Your task to perform on an android device: set default search engine in the chrome app Image 0: 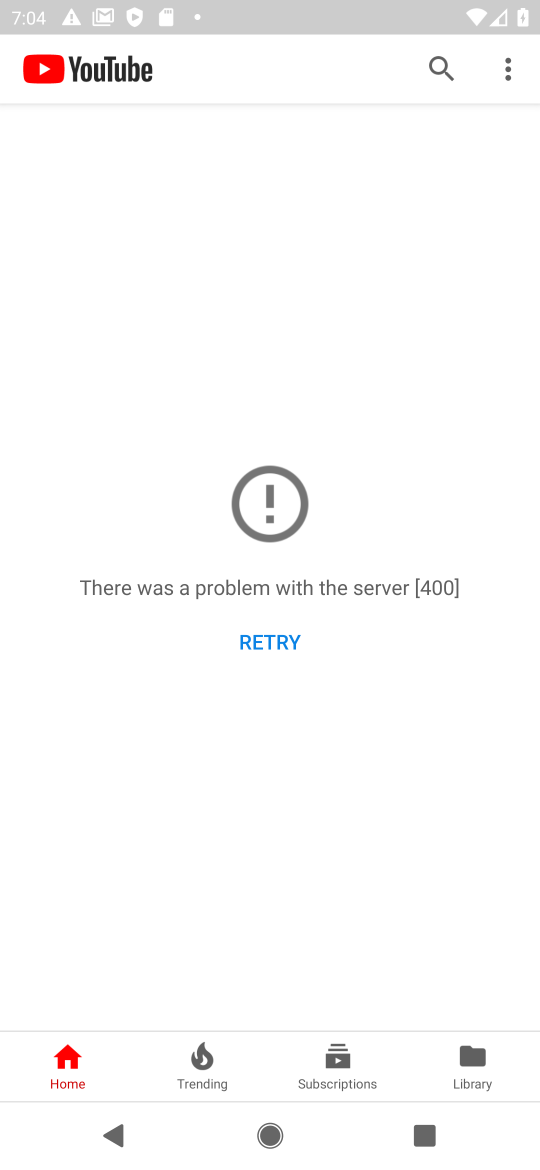
Step 0: press home button
Your task to perform on an android device: set default search engine in the chrome app Image 1: 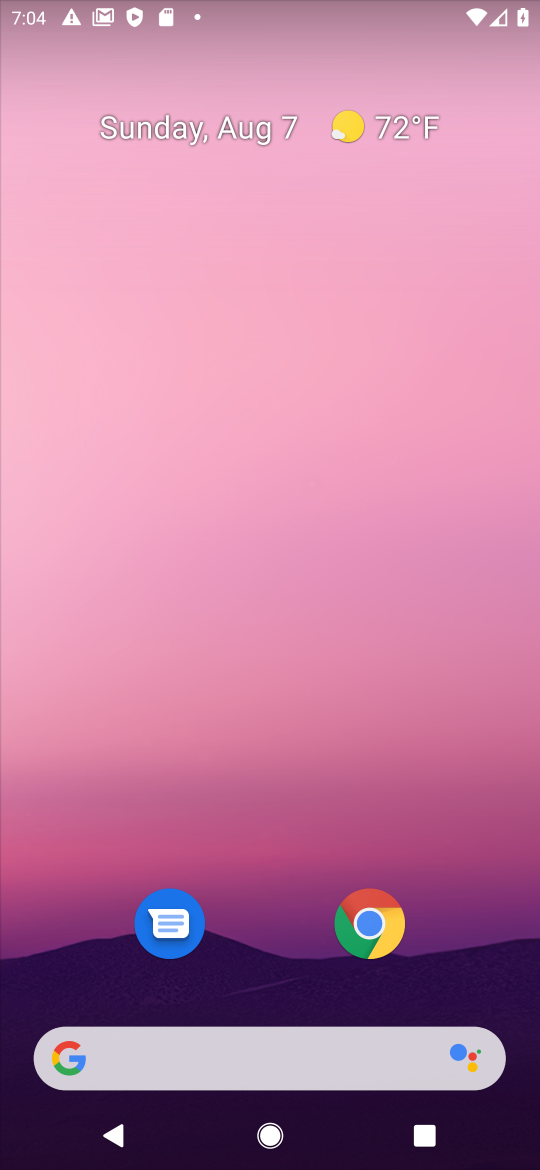
Step 1: drag from (465, 998) to (446, 9)
Your task to perform on an android device: set default search engine in the chrome app Image 2: 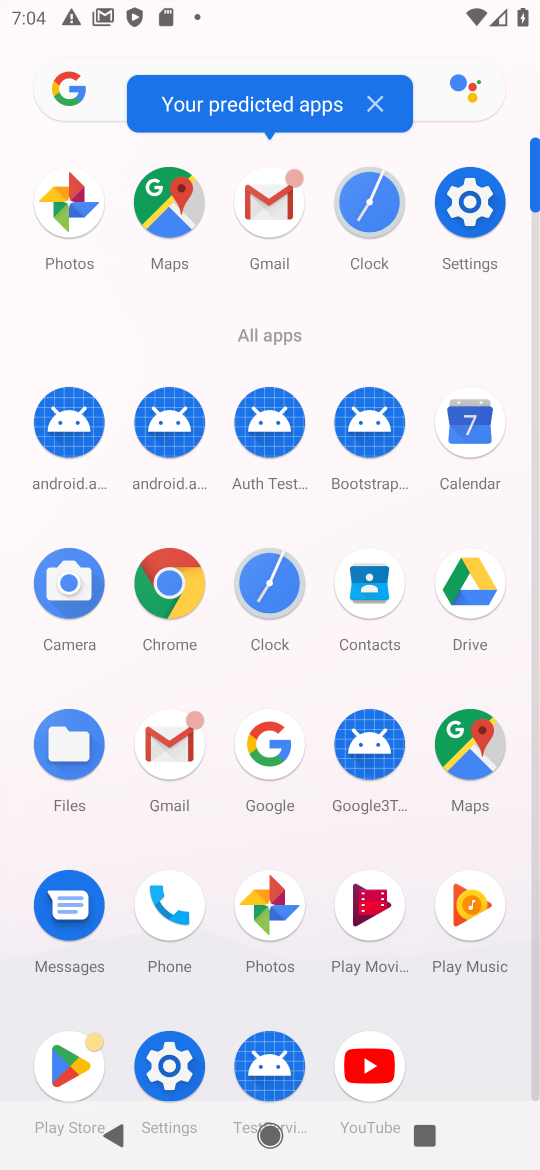
Step 2: click (187, 595)
Your task to perform on an android device: set default search engine in the chrome app Image 3: 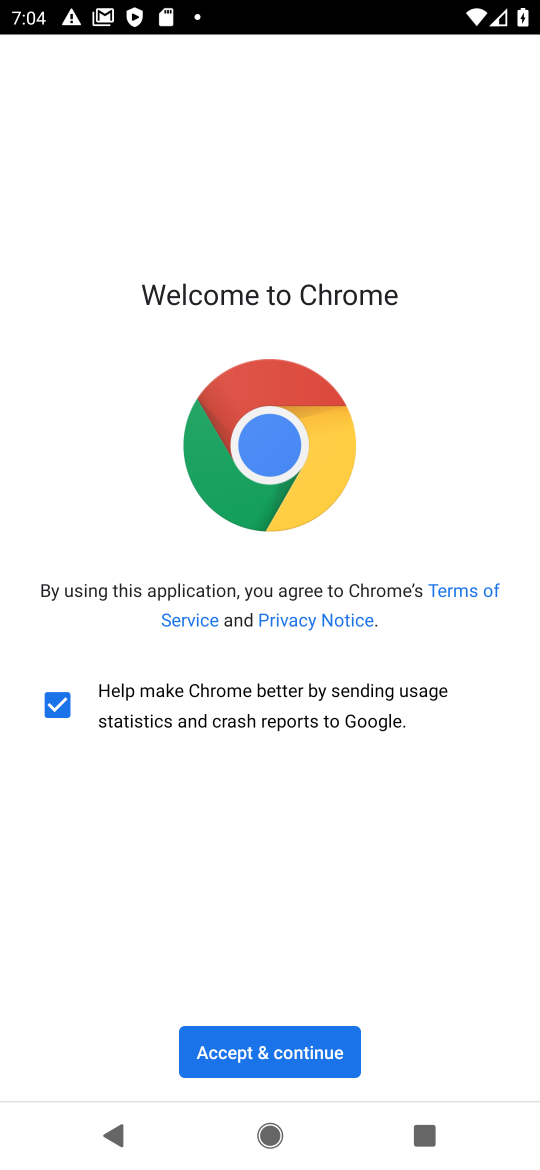
Step 3: click (296, 1055)
Your task to perform on an android device: set default search engine in the chrome app Image 4: 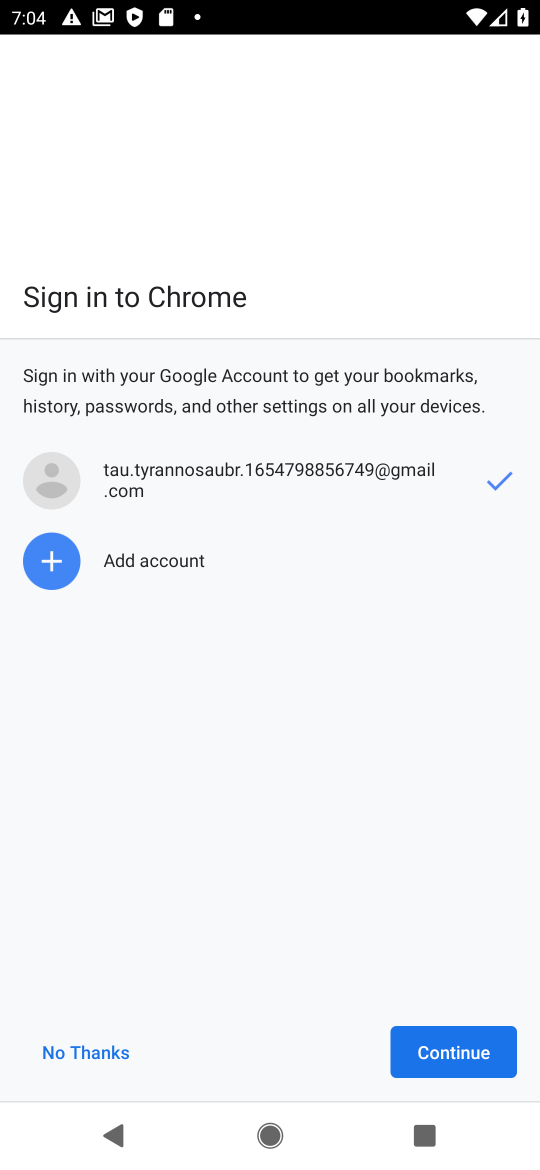
Step 4: click (423, 1055)
Your task to perform on an android device: set default search engine in the chrome app Image 5: 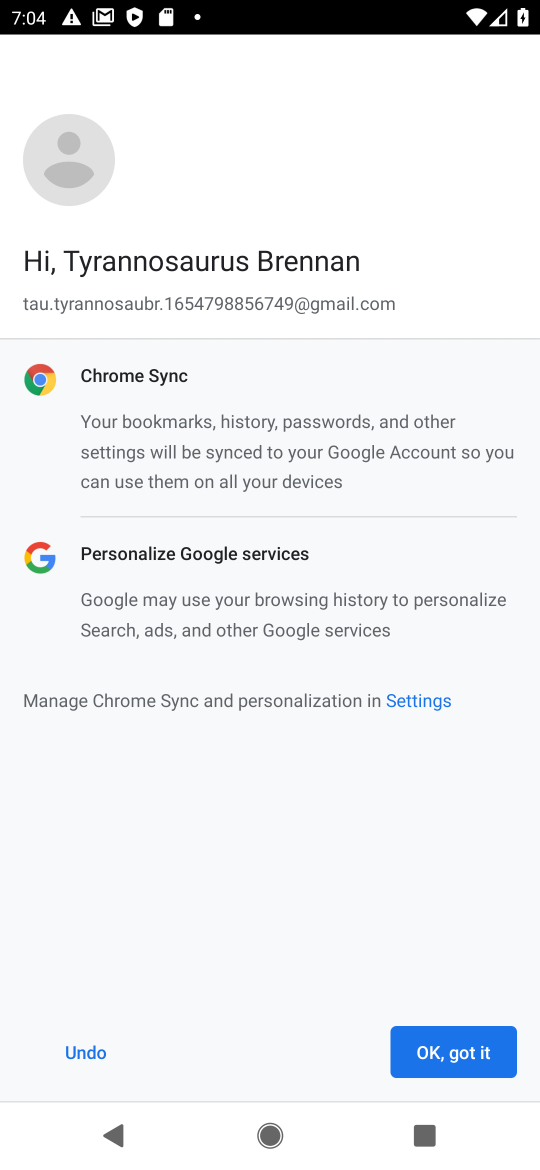
Step 5: click (423, 1055)
Your task to perform on an android device: set default search engine in the chrome app Image 6: 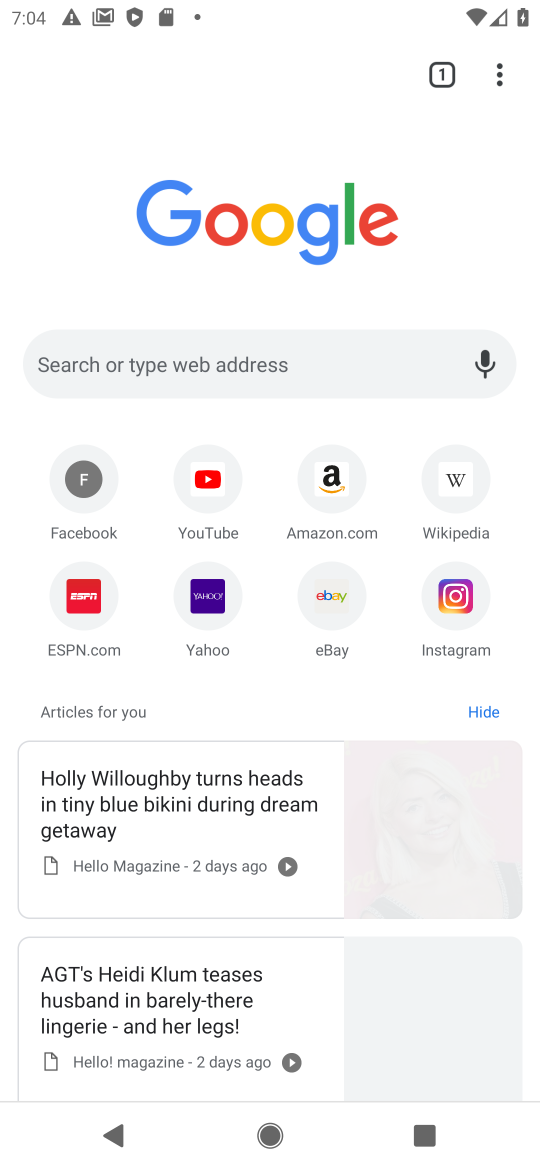
Step 6: click (499, 62)
Your task to perform on an android device: set default search engine in the chrome app Image 7: 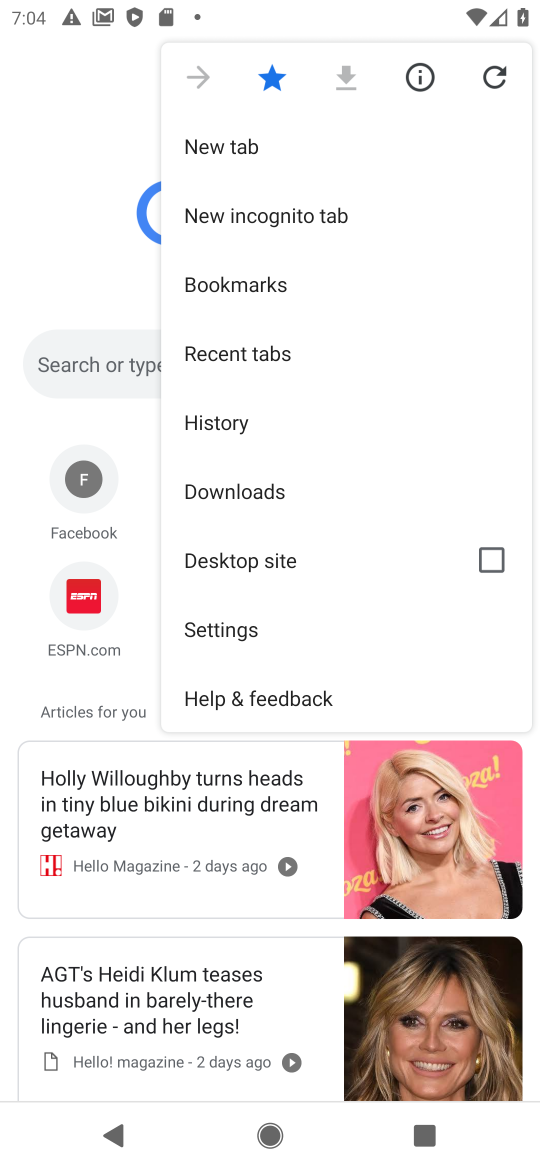
Step 7: click (235, 639)
Your task to perform on an android device: set default search engine in the chrome app Image 8: 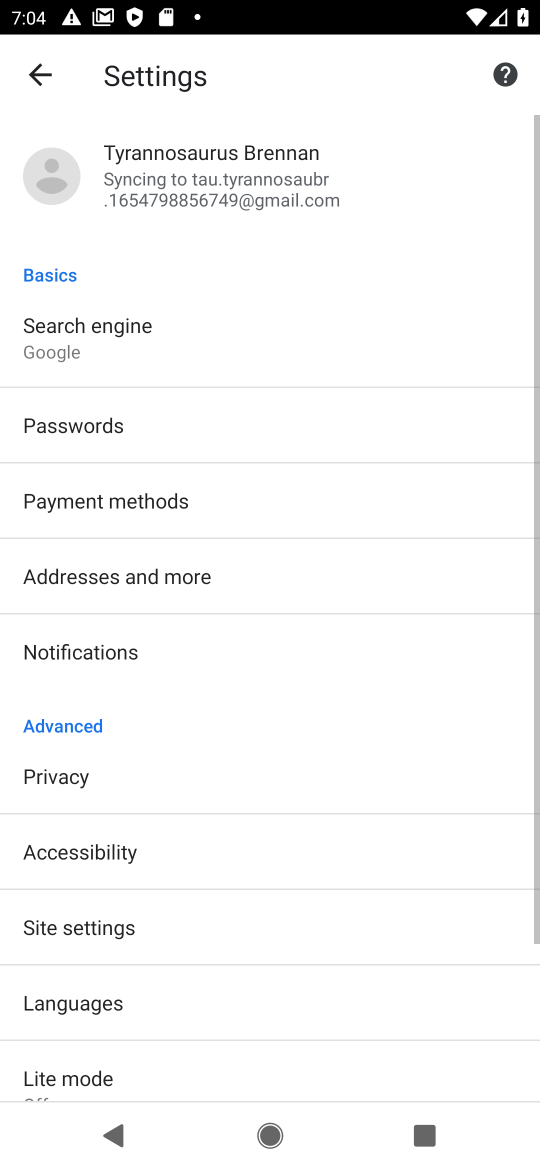
Step 8: click (141, 356)
Your task to perform on an android device: set default search engine in the chrome app Image 9: 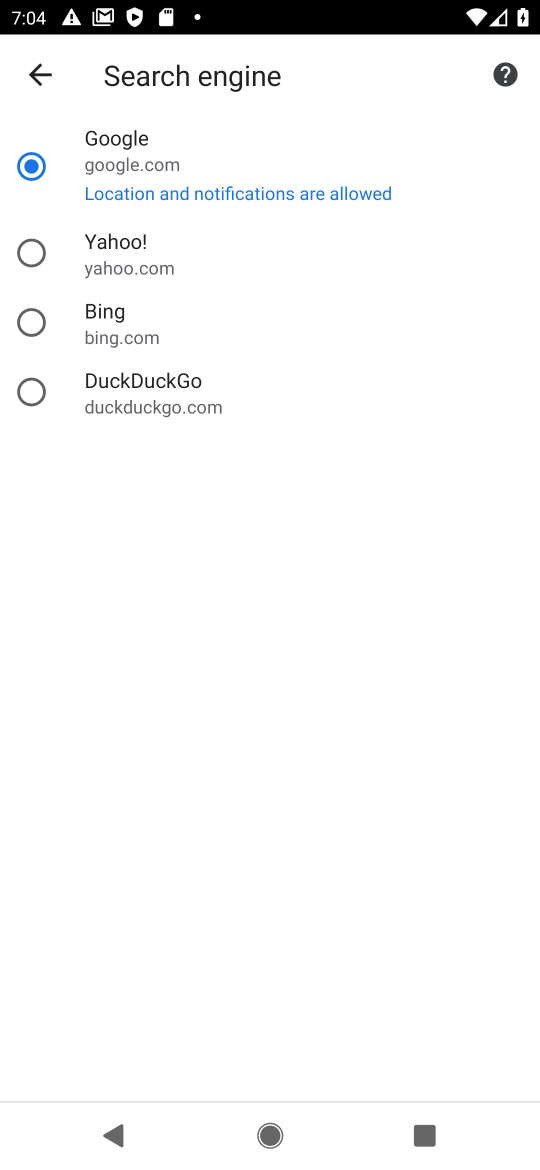
Step 9: click (107, 310)
Your task to perform on an android device: set default search engine in the chrome app Image 10: 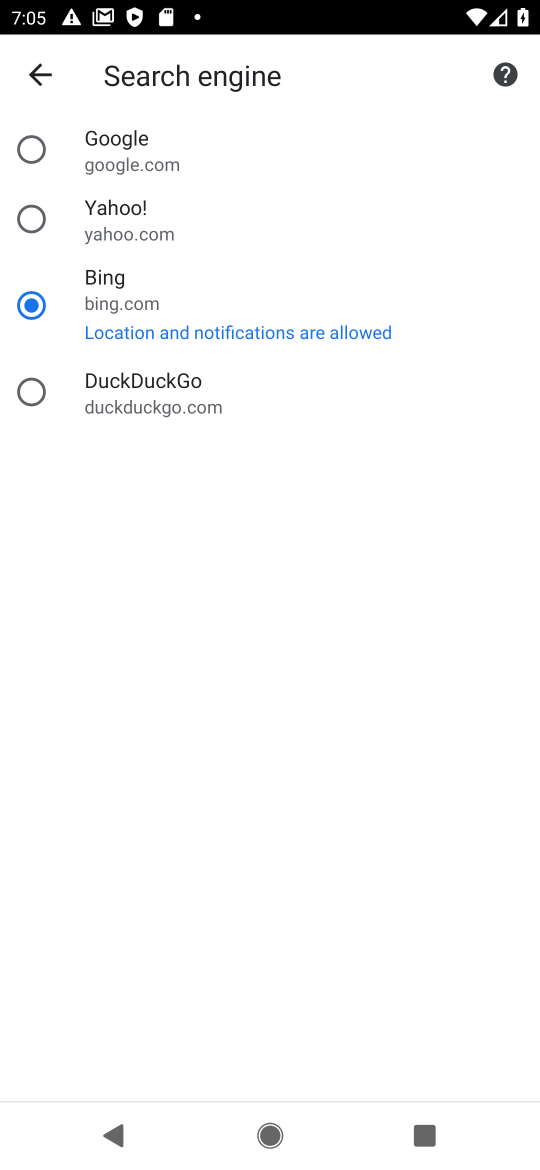
Step 10: task complete